Your task to perform on an android device: Set the phone to "Do not disturb". Image 0: 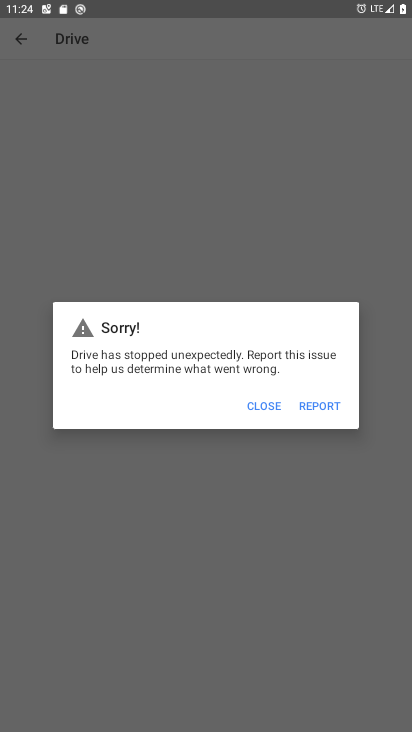
Step 0: press home button
Your task to perform on an android device: Set the phone to "Do not disturb". Image 1: 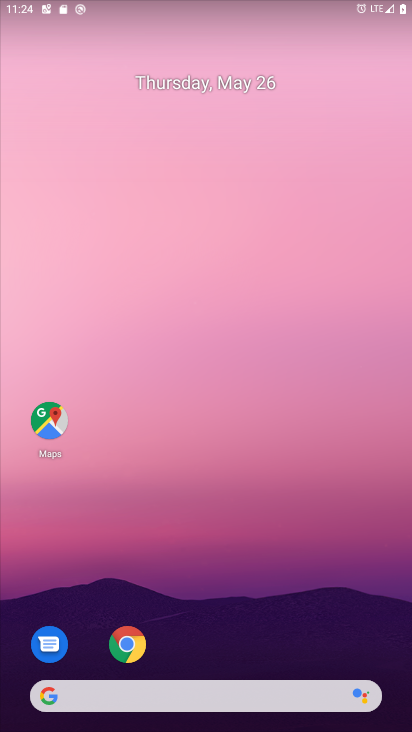
Step 1: drag from (362, 622) to (350, 239)
Your task to perform on an android device: Set the phone to "Do not disturb". Image 2: 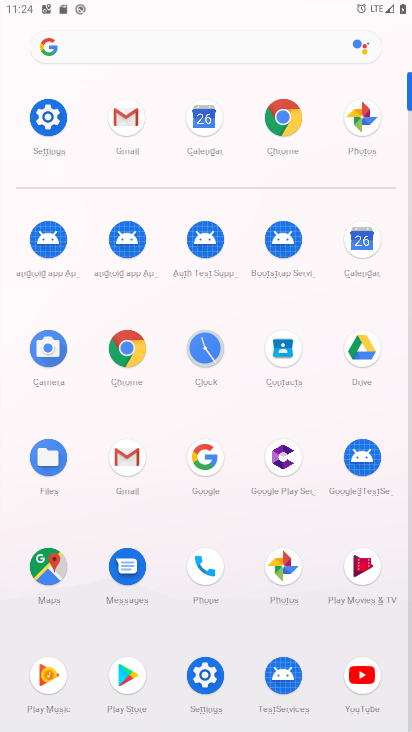
Step 2: click (52, 127)
Your task to perform on an android device: Set the phone to "Do not disturb". Image 3: 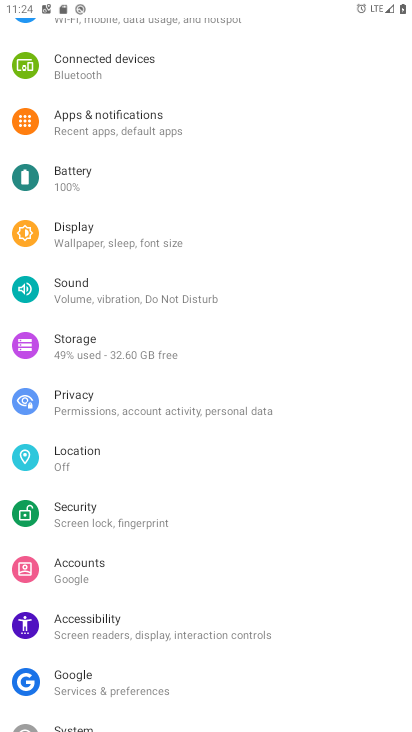
Step 3: drag from (347, 239) to (344, 367)
Your task to perform on an android device: Set the phone to "Do not disturb". Image 4: 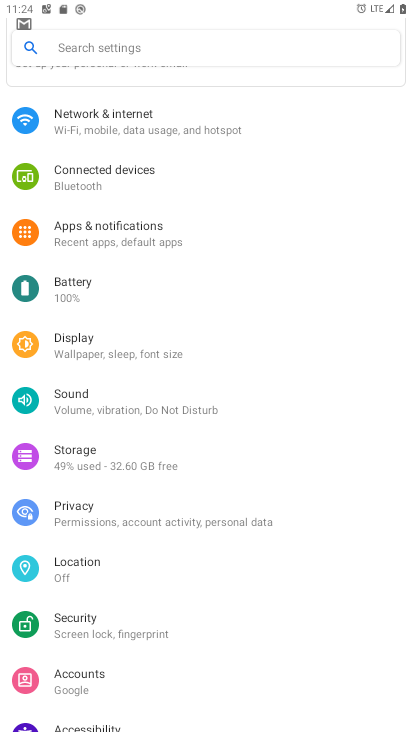
Step 4: drag from (324, 216) to (331, 402)
Your task to perform on an android device: Set the phone to "Do not disturb". Image 5: 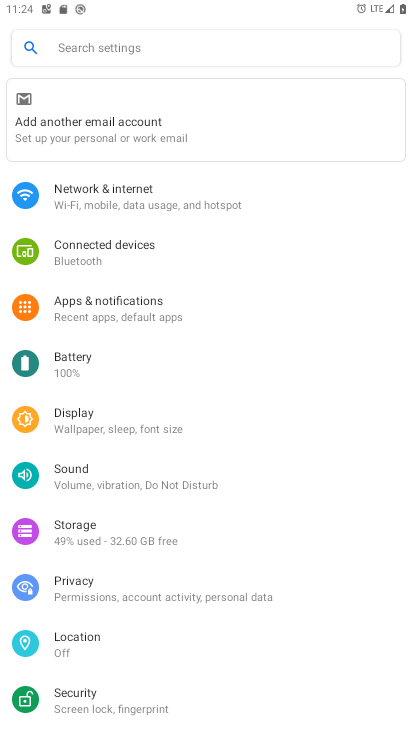
Step 5: click (161, 486)
Your task to perform on an android device: Set the phone to "Do not disturb". Image 6: 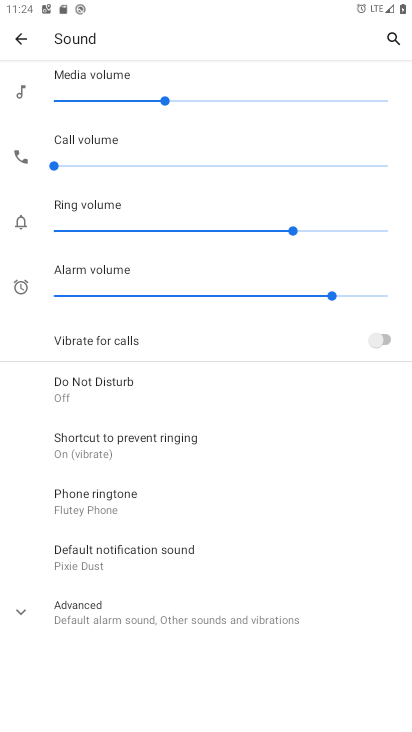
Step 6: click (135, 404)
Your task to perform on an android device: Set the phone to "Do not disturb". Image 7: 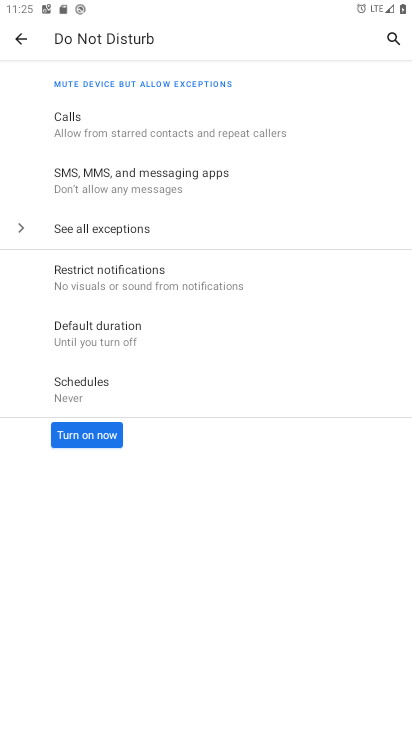
Step 7: click (94, 441)
Your task to perform on an android device: Set the phone to "Do not disturb". Image 8: 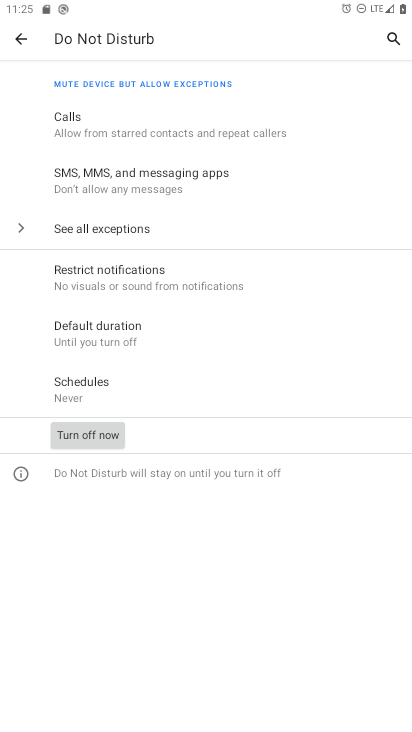
Step 8: task complete